Your task to perform on an android device: Go to settings Image 0: 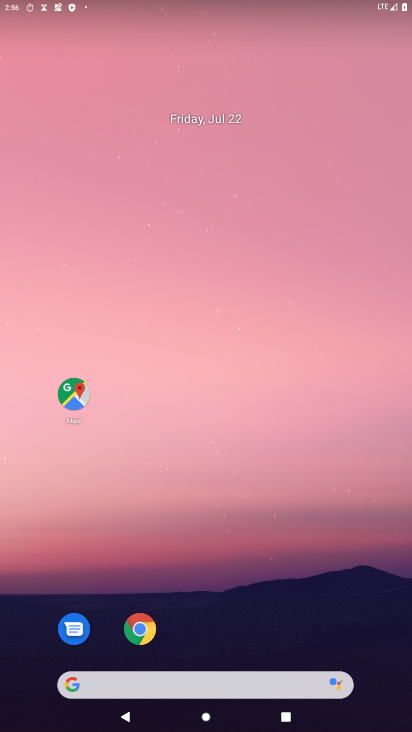
Step 0: drag from (293, 677) to (379, 14)
Your task to perform on an android device: Go to settings Image 1: 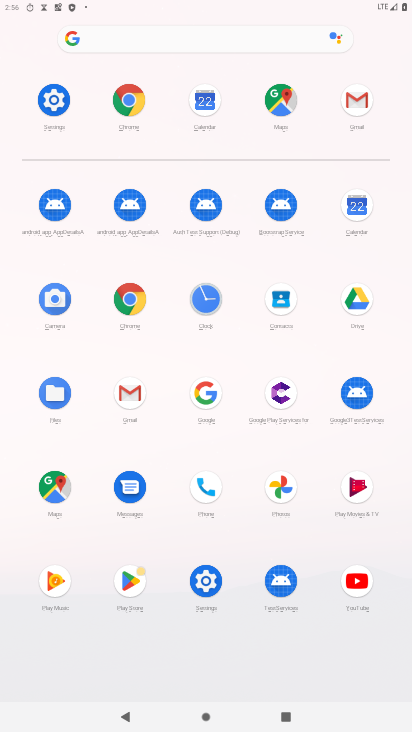
Step 1: click (41, 97)
Your task to perform on an android device: Go to settings Image 2: 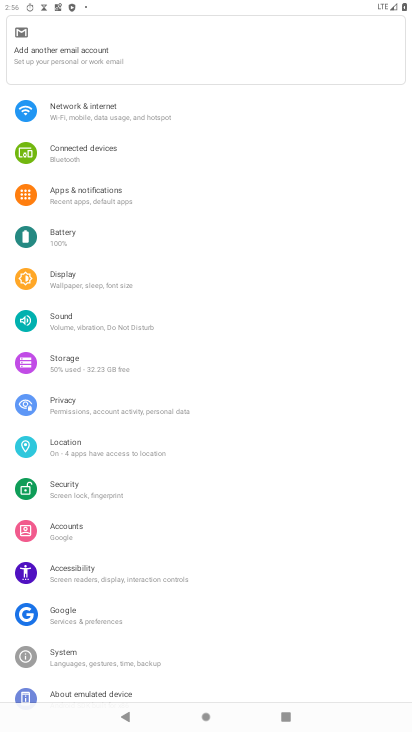
Step 2: task complete